Your task to perform on an android device: Look up the best rated coffee maker on Lowe's. Image 0: 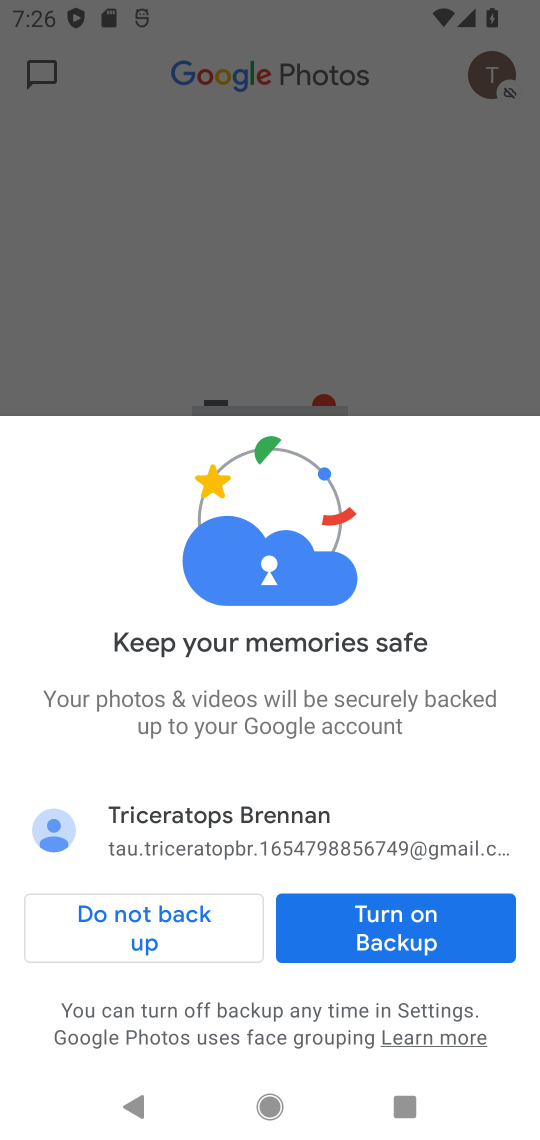
Step 0: press home button
Your task to perform on an android device: Look up the best rated coffee maker on Lowe's. Image 1: 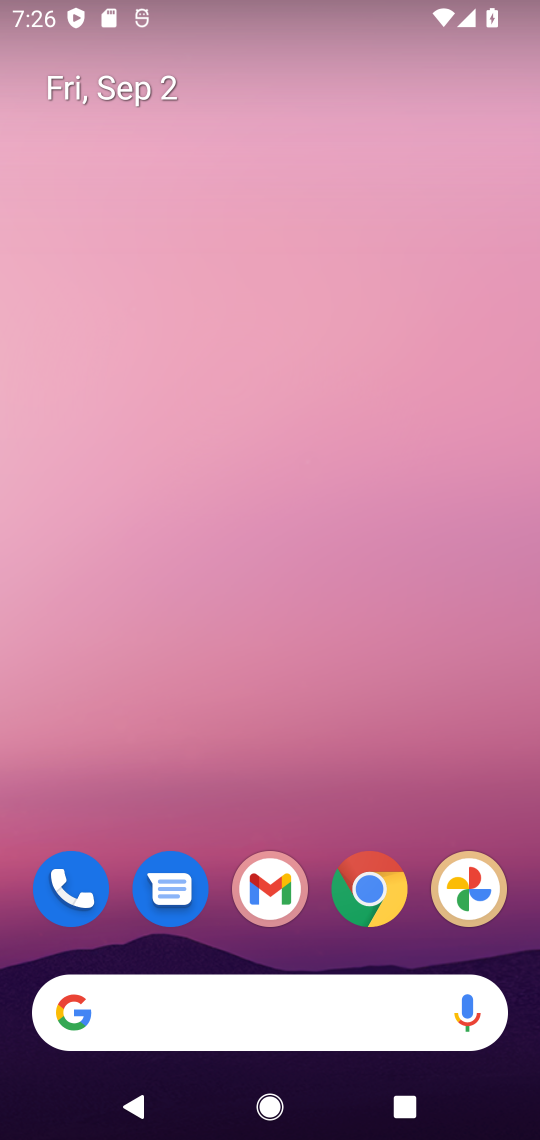
Step 1: click (262, 999)
Your task to perform on an android device: Look up the best rated coffee maker on Lowe's. Image 2: 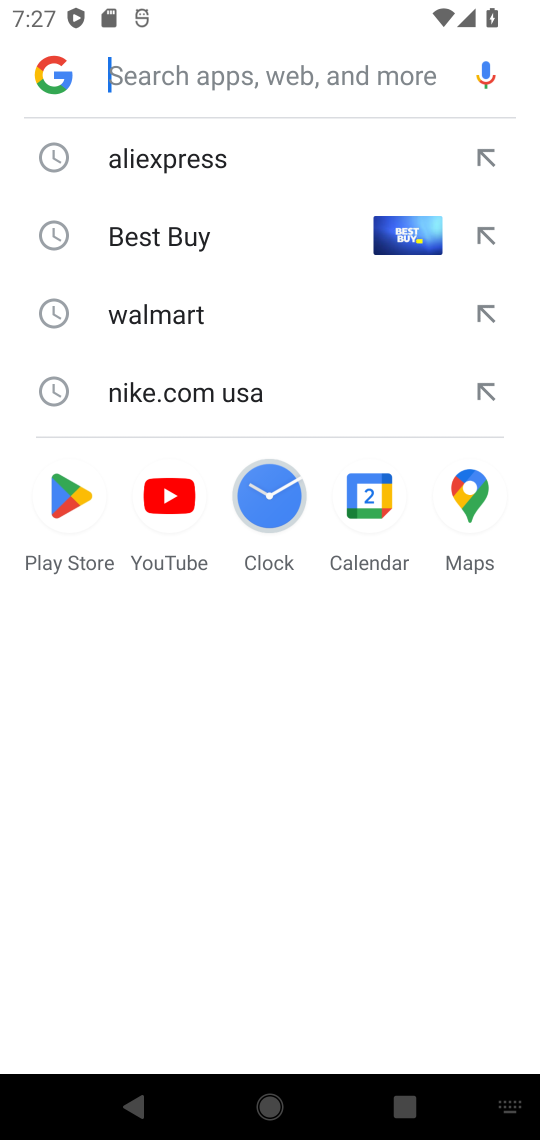
Step 2: type "Lowe's"
Your task to perform on an android device: Look up the best rated coffee maker on Lowe's. Image 3: 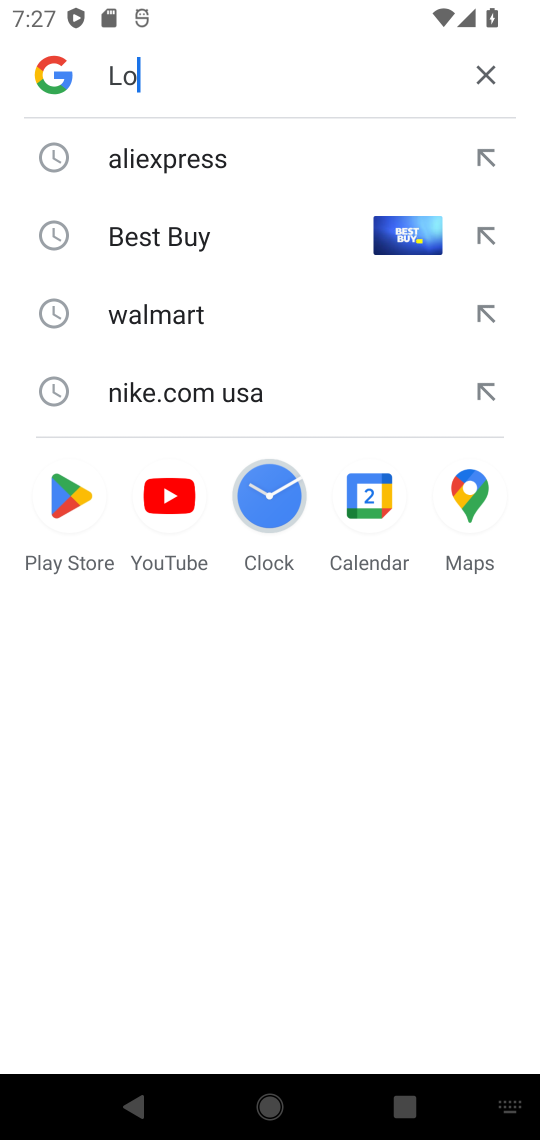
Step 3: type ""
Your task to perform on an android device: Look up the best rated coffee maker on Lowe's. Image 4: 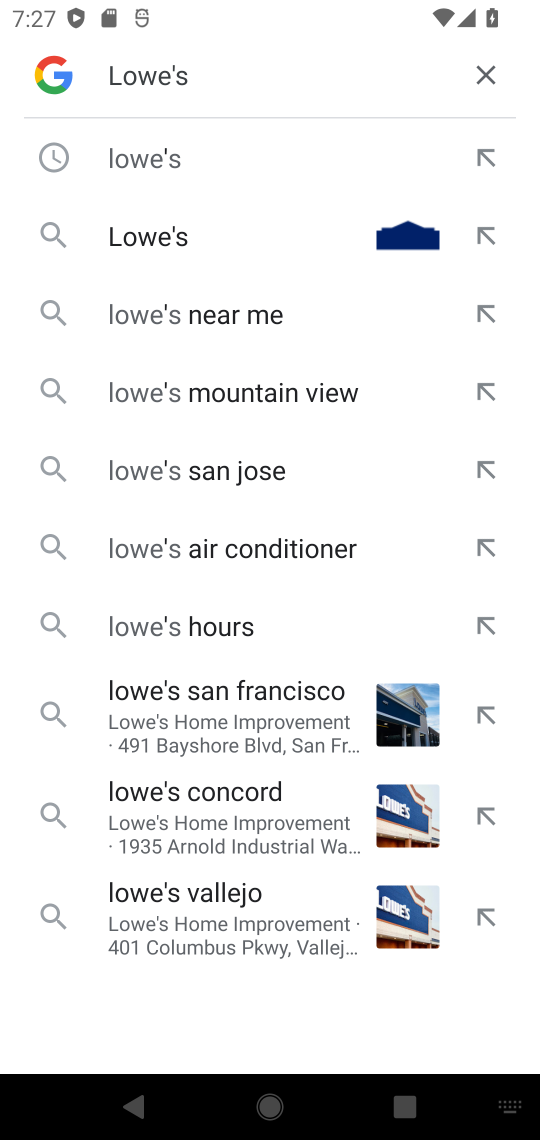
Step 4: click (223, 215)
Your task to perform on an android device: Look up the best rated coffee maker on Lowe's. Image 5: 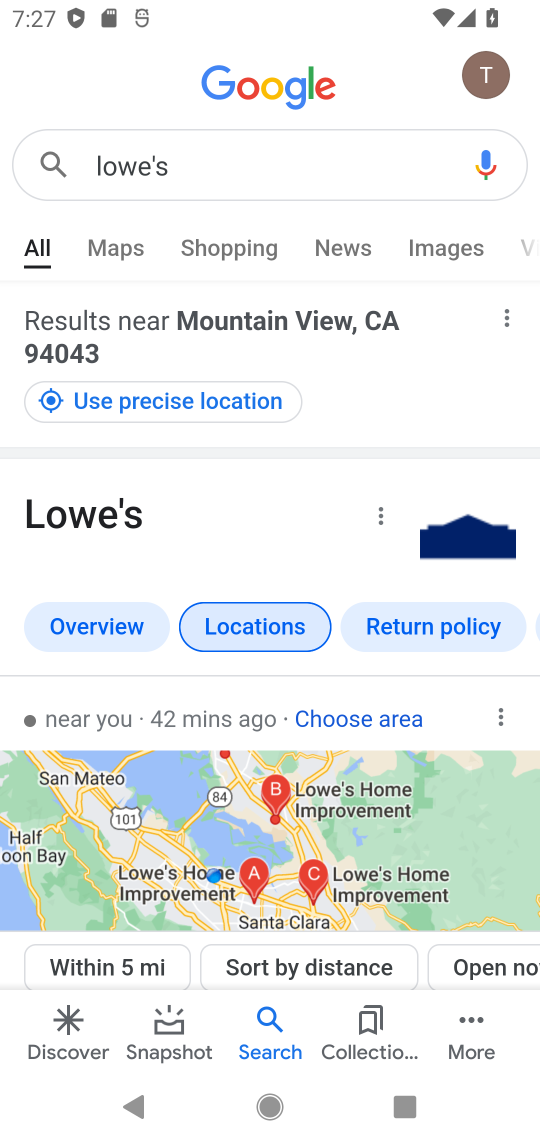
Step 5: drag from (182, 672) to (188, 365)
Your task to perform on an android device: Look up the best rated coffee maker on Lowe's. Image 6: 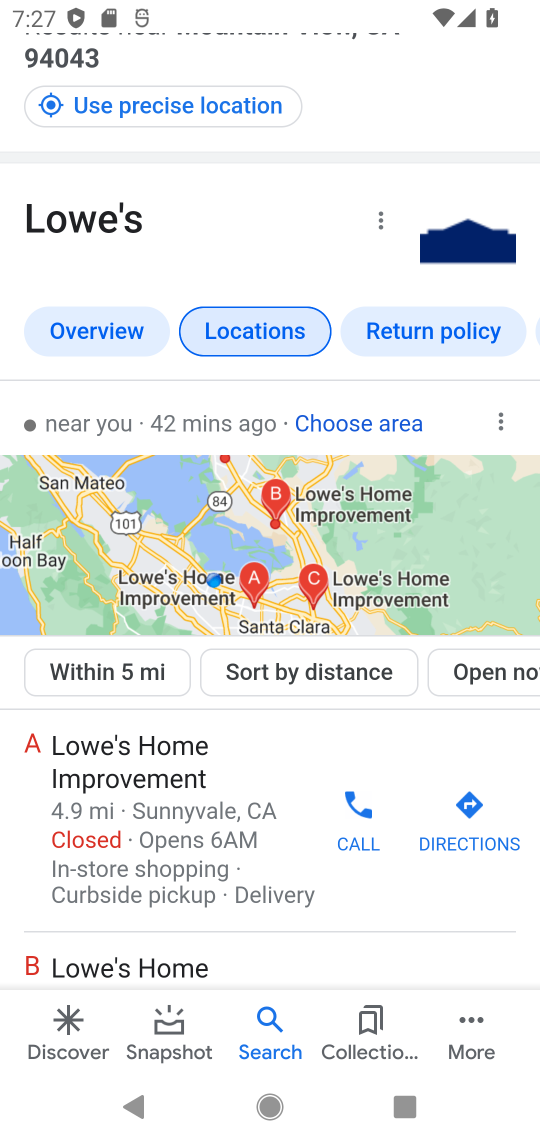
Step 6: drag from (285, 736) to (275, 295)
Your task to perform on an android device: Look up the best rated coffee maker on Lowe's. Image 7: 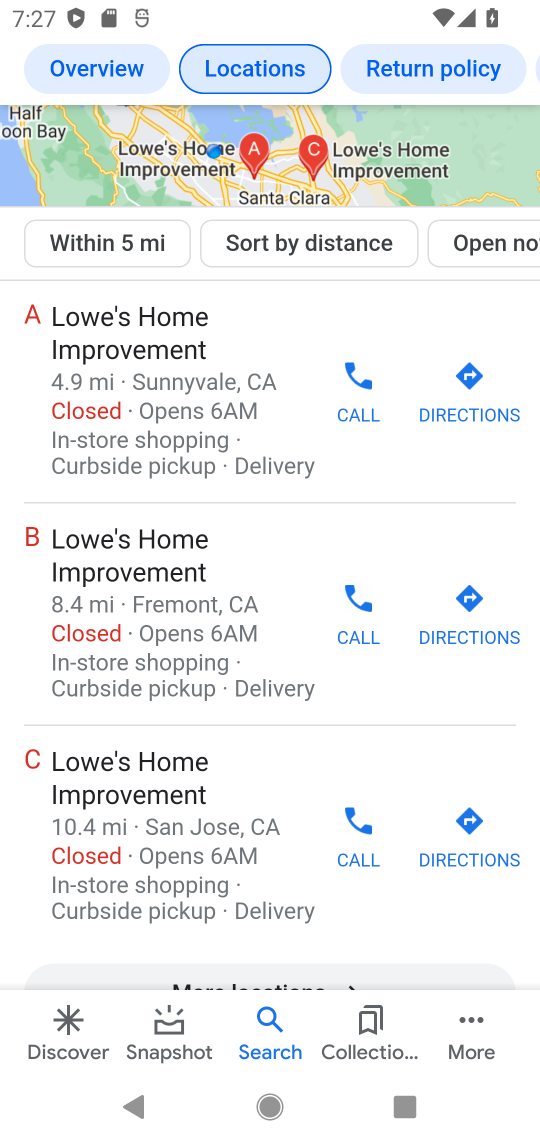
Step 7: drag from (259, 889) to (230, 421)
Your task to perform on an android device: Look up the best rated coffee maker on Lowe's. Image 8: 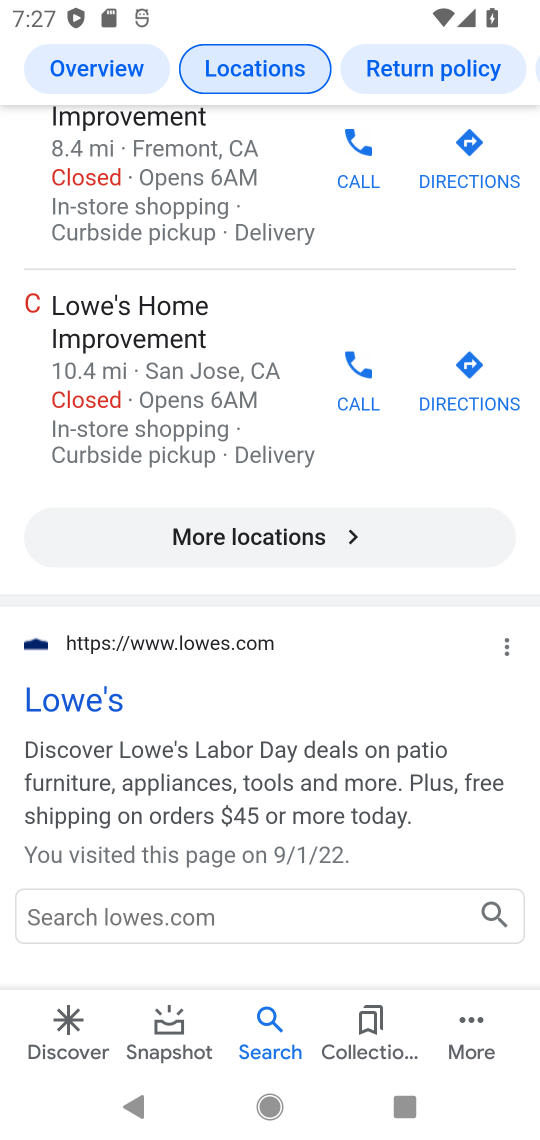
Step 8: click (115, 699)
Your task to perform on an android device: Look up the best rated coffee maker on Lowe's. Image 9: 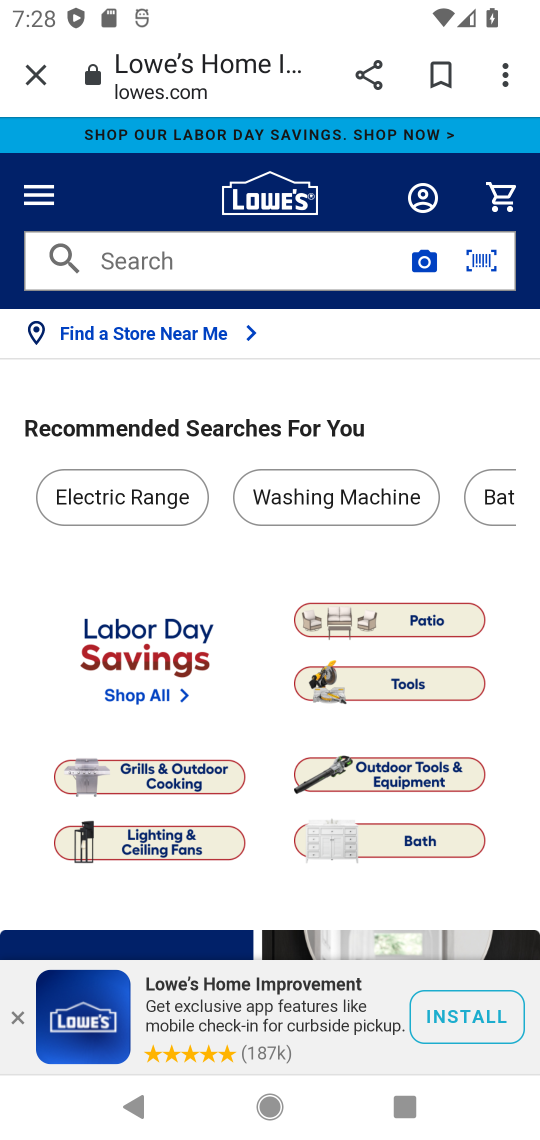
Step 9: type "coffee maker"
Your task to perform on an android device: Look up the best rated coffee maker on Lowe's. Image 10: 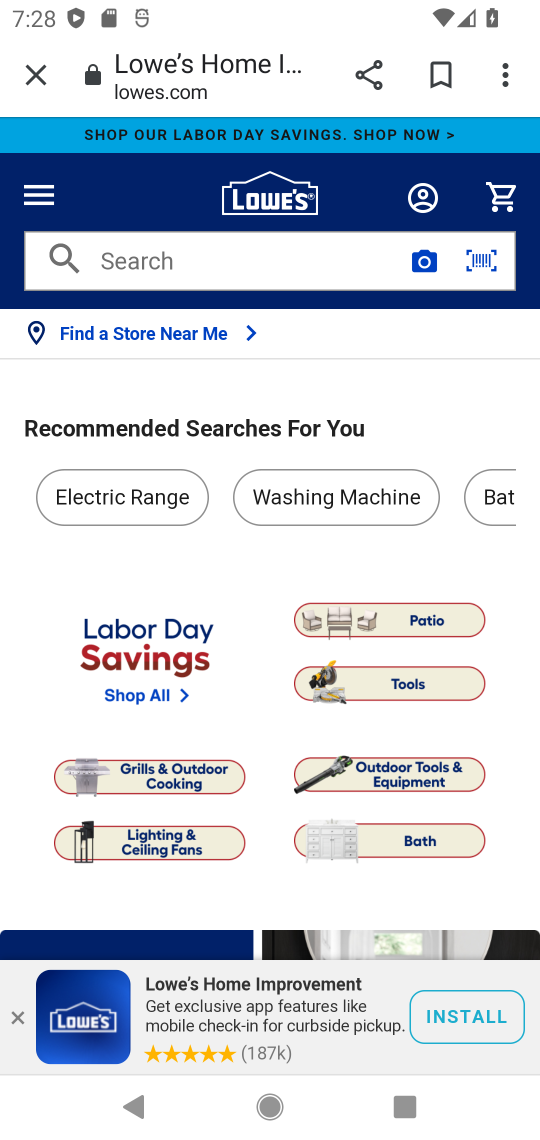
Step 10: type ""
Your task to perform on an android device: Look up the best rated coffee maker on Lowe's. Image 11: 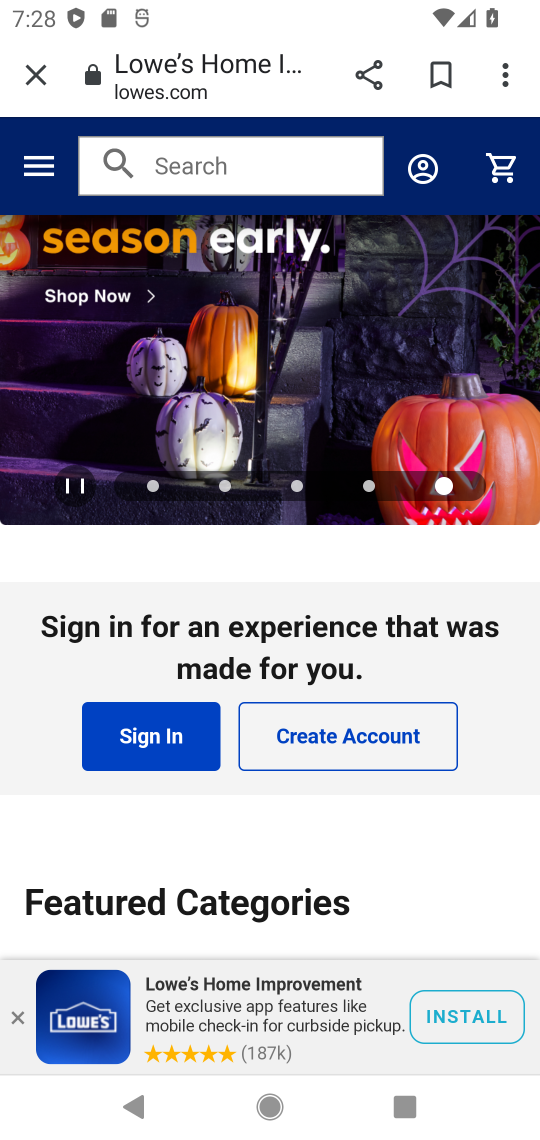
Step 11: click (233, 172)
Your task to perform on an android device: Look up the best rated coffee maker on Lowe's. Image 12: 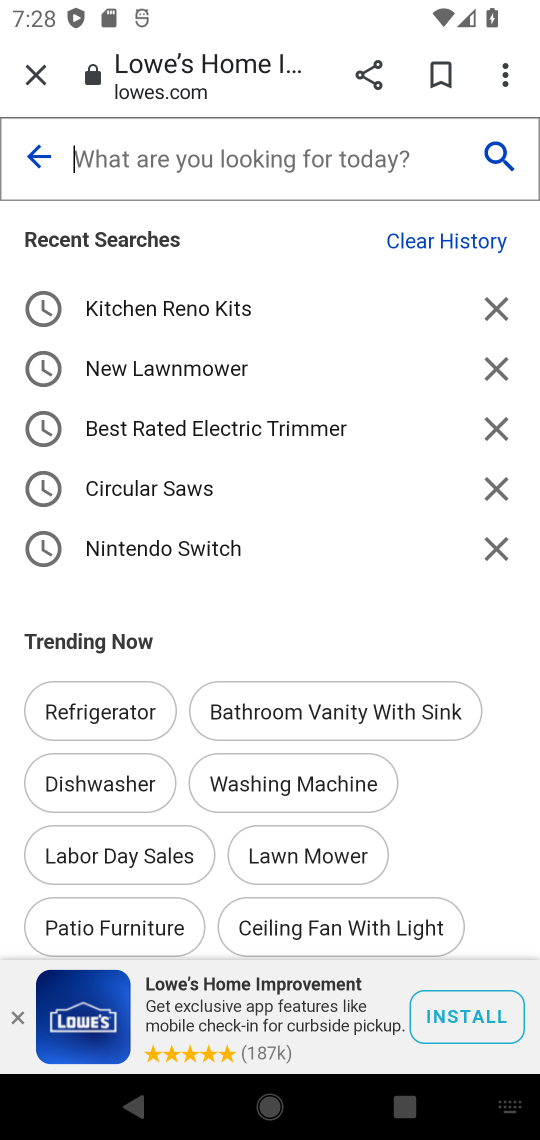
Step 12: type "coffee make"
Your task to perform on an android device: Look up the best rated coffee maker on Lowe's. Image 13: 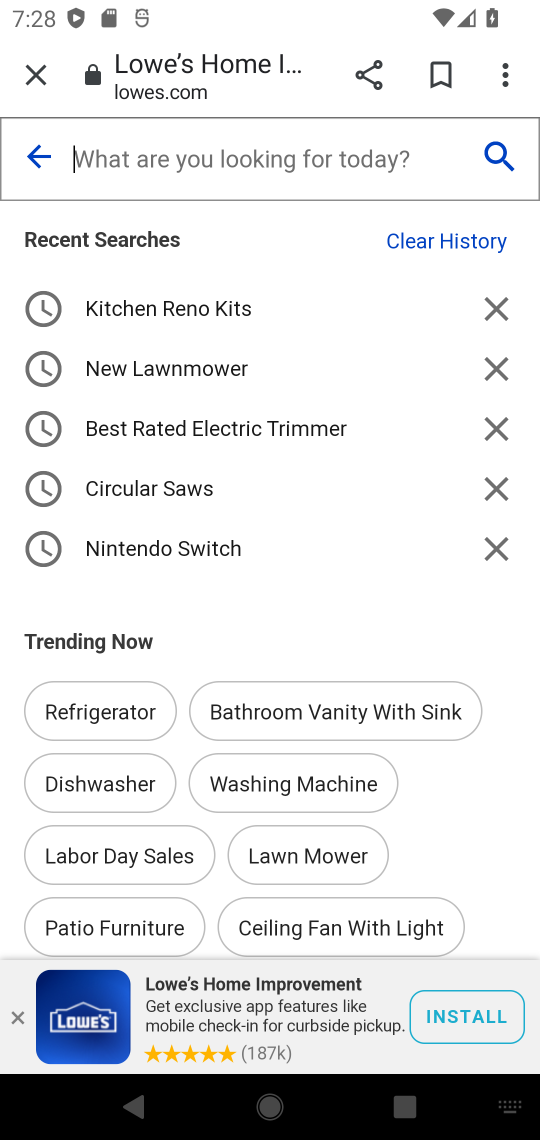
Step 13: type ""
Your task to perform on an android device: Look up the best rated coffee maker on Lowe's. Image 14: 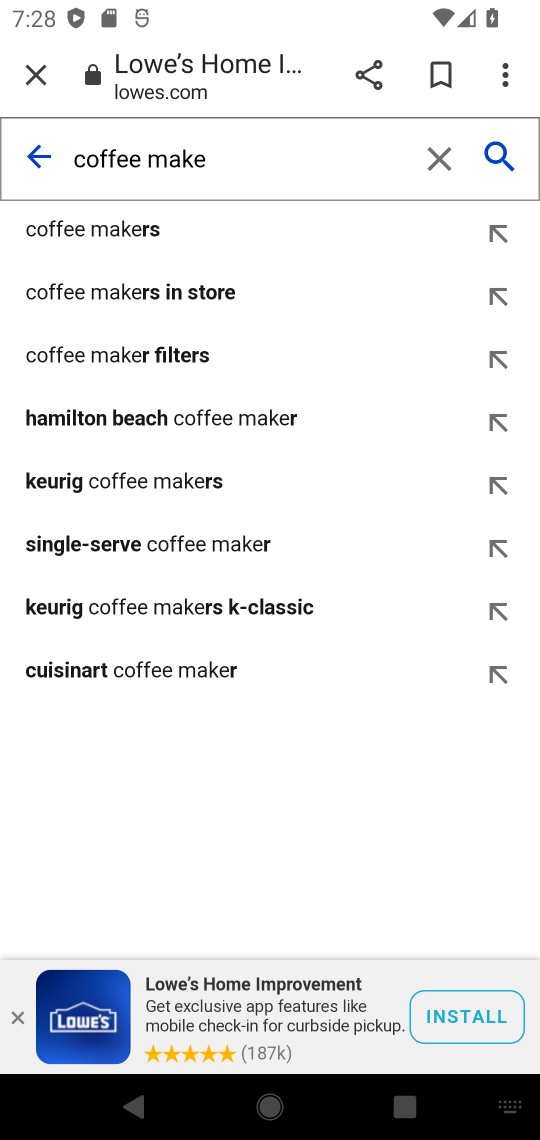
Step 14: click (175, 235)
Your task to perform on an android device: Look up the best rated coffee maker on Lowe's. Image 15: 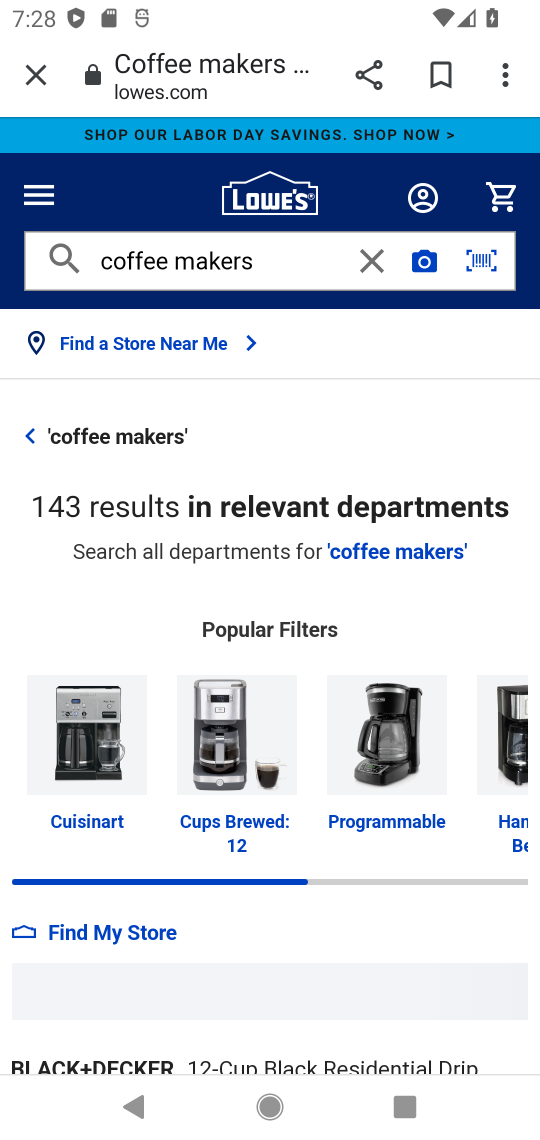
Step 15: task complete